Your task to perform on an android device: Open Amazon Image 0: 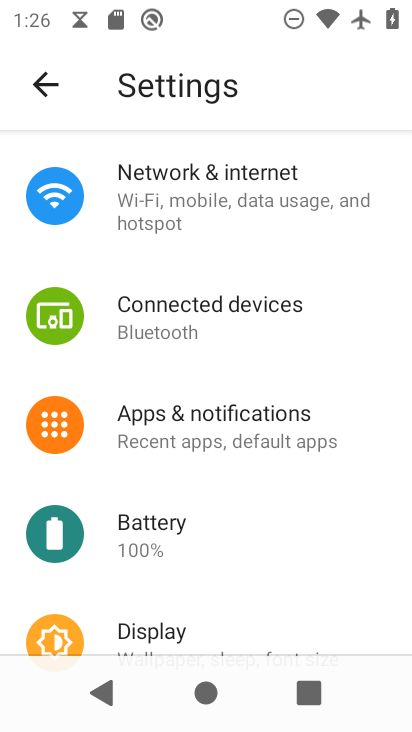
Step 0: press home button
Your task to perform on an android device: Open Amazon Image 1: 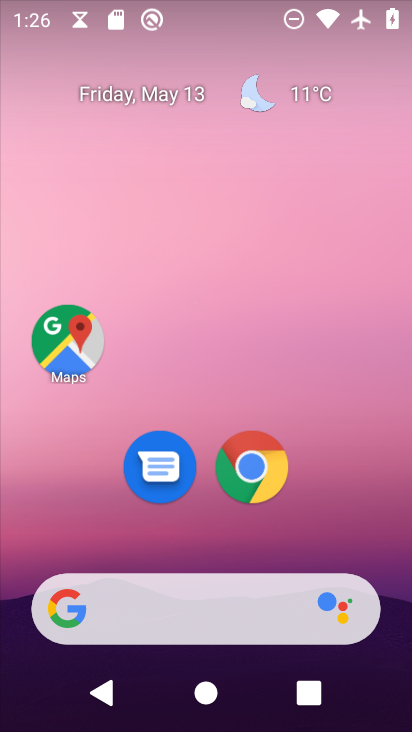
Step 1: click (258, 478)
Your task to perform on an android device: Open Amazon Image 2: 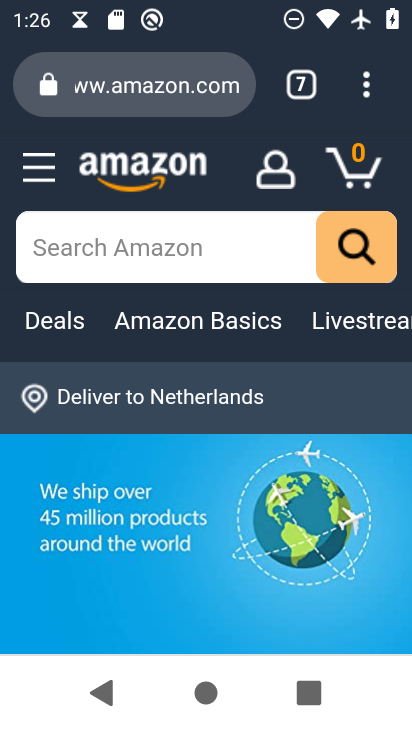
Step 2: task complete